Your task to perform on an android device: set the stopwatch Image 0: 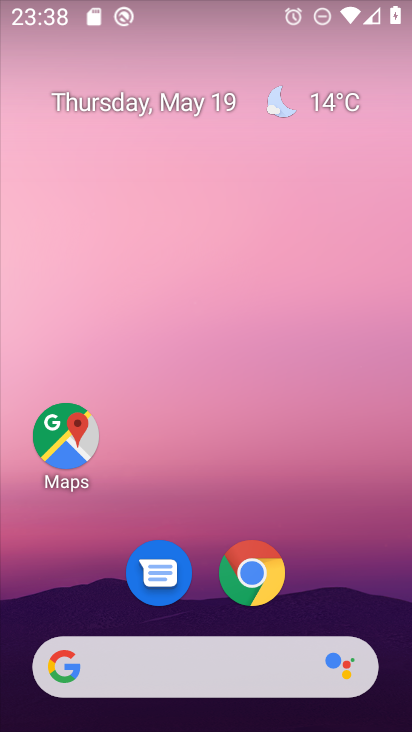
Step 0: drag from (322, 584) to (347, 142)
Your task to perform on an android device: set the stopwatch Image 1: 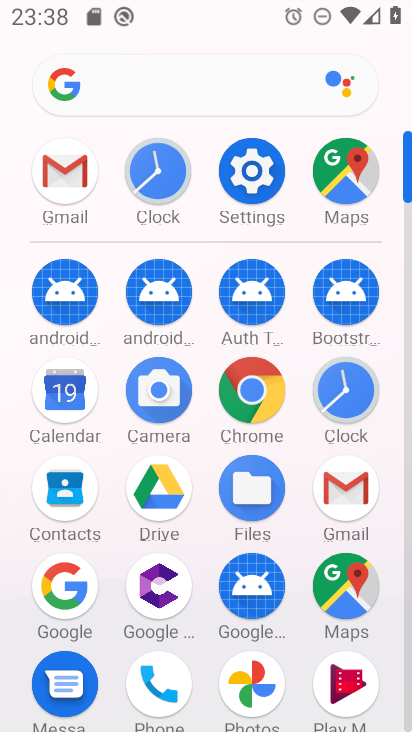
Step 1: click (339, 403)
Your task to perform on an android device: set the stopwatch Image 2: 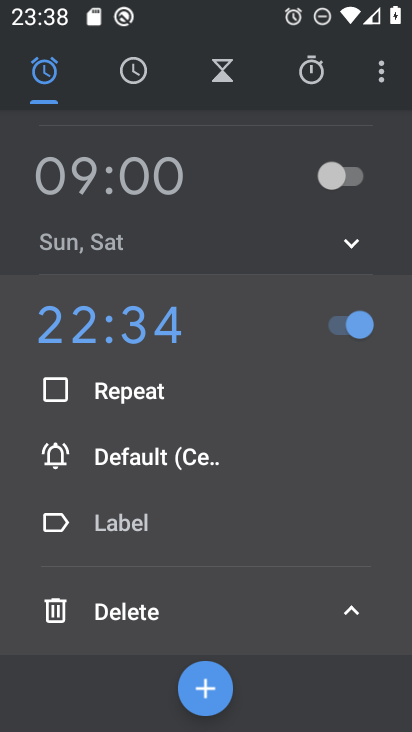
Step 2: click (315, 67)
Your task to perform on an android device: set the stopwatch Image 3: 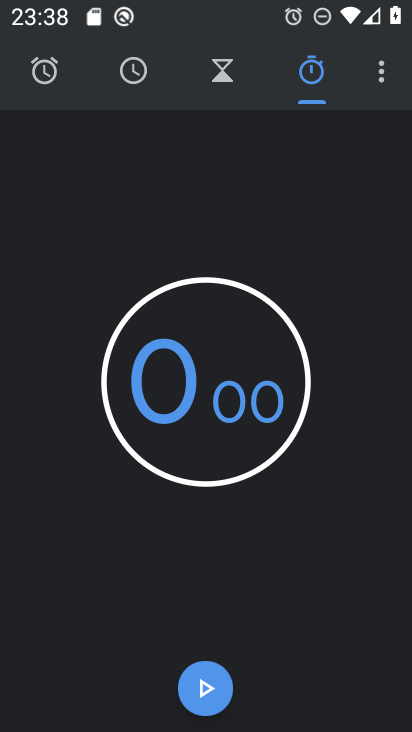
Step 3: click (207, 678)
Your task to perform on an android device: set the stopwatch Image 4: 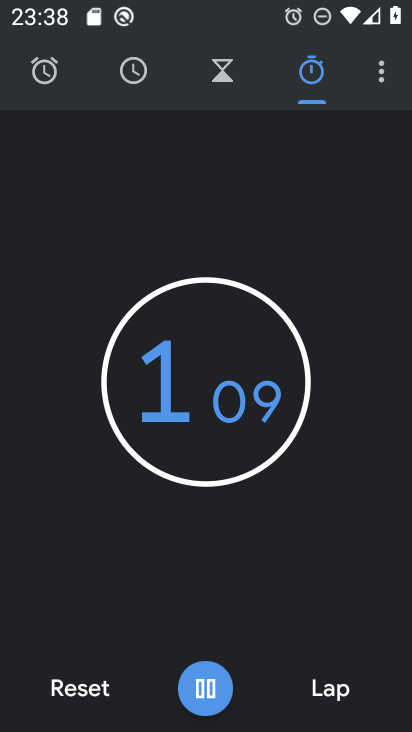
Step 4: click (207, 678)
Your task to perform on an android device: set the stopwatch Image 5: 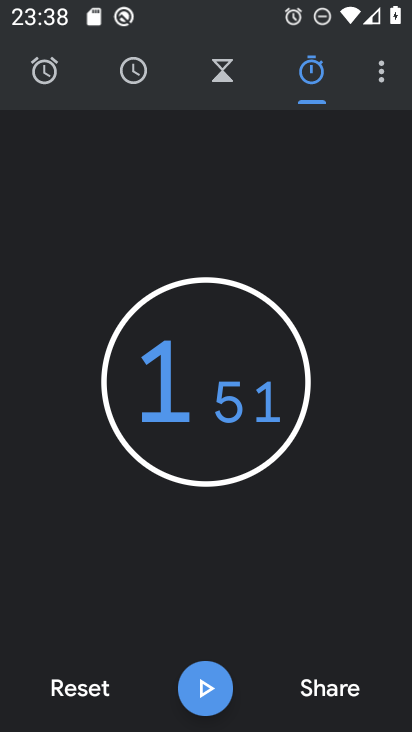
Step 5: task complete